Your task to perform on an android device: star an email in the gmail app Image 0: 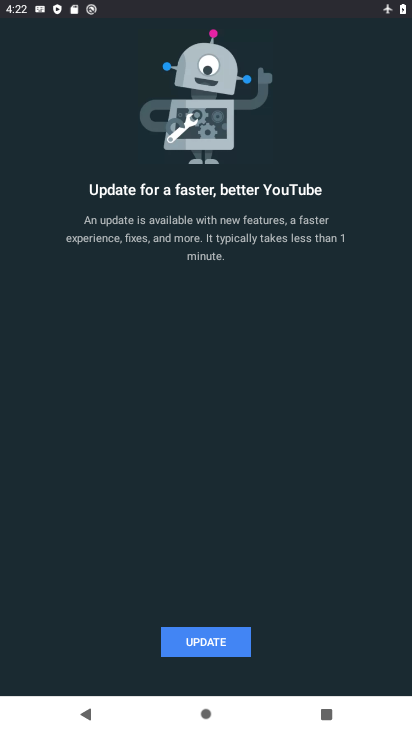
Step 0: press home button
Your task to perform on an android device: star an email in the gmail app Image 1: 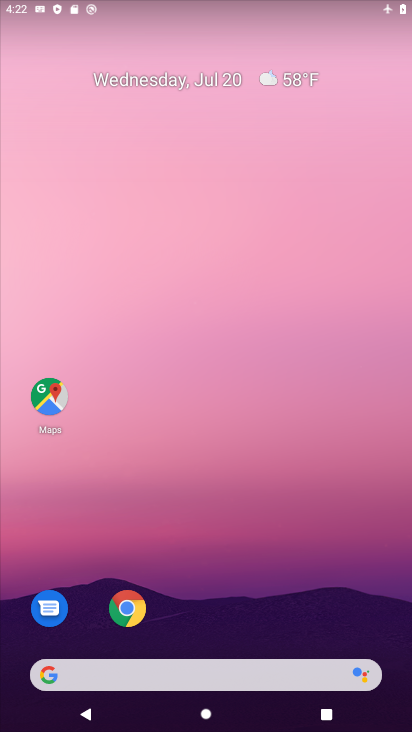
Step 1: drag from (282, 610) to (283, 329)
Your task to perform on an android device: star an email in the gmail app Image 2: 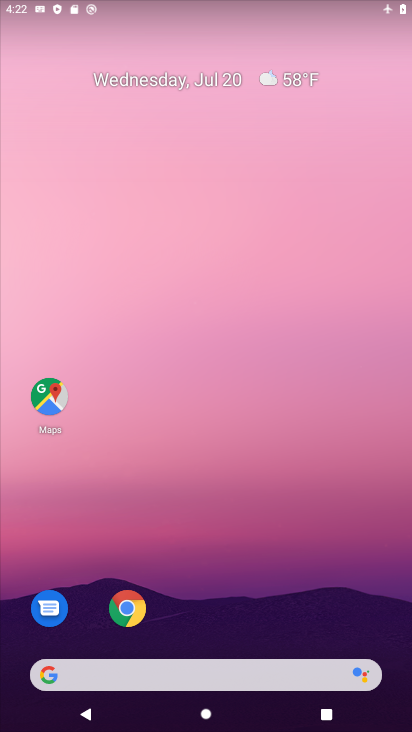
Step 2: drag from (221, 622) to (233, 225)
Your task to perform on an android device: star an email in the gmail app Image 3: 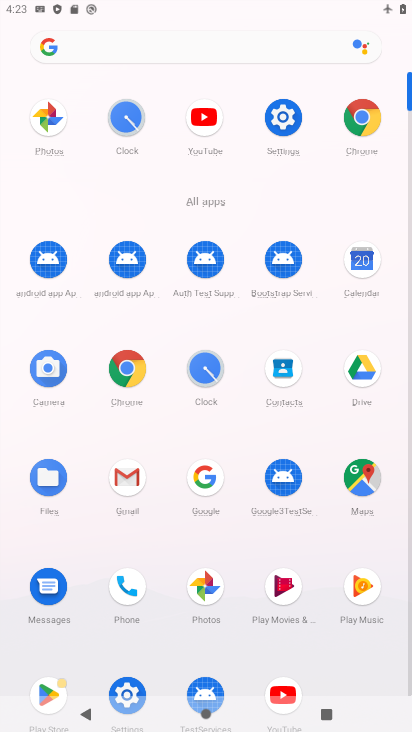
Step 3: click (133, 464)
Your task to perform on an android device: star an email in the gmail app Image 4: 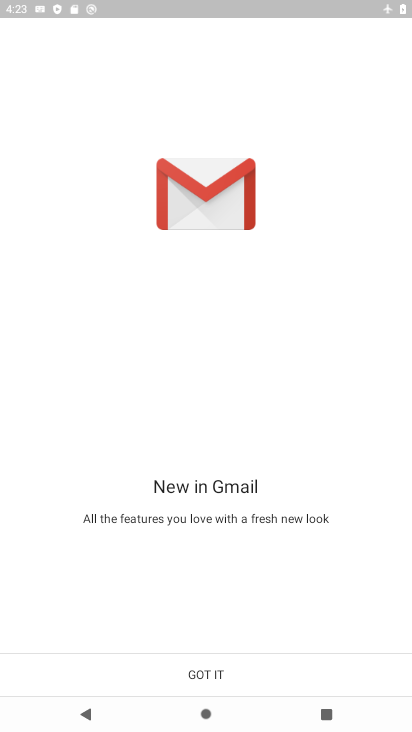
Step 4: click (204, 680)
Your task to perform on an android device: star an email in the gmail app Image 5: 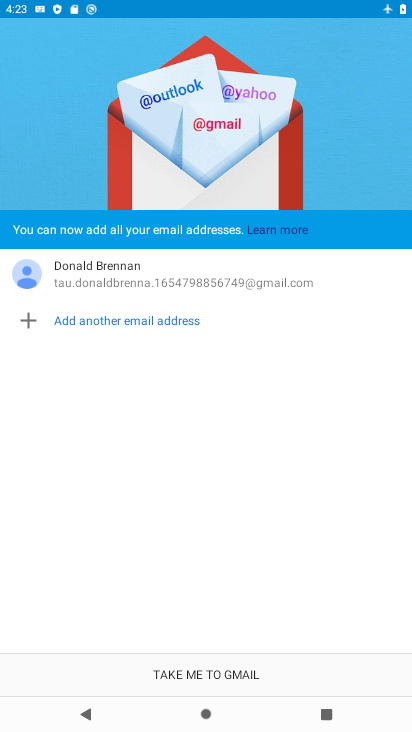
Step 5: click (226, 666)
Your task to perform on an android device: star an email in the gmail app Image 6: 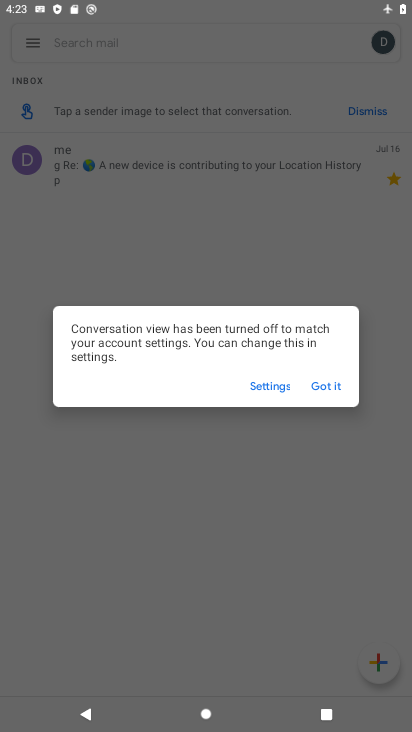
Step 6: click (332, 383)
Your task to perform on an android device: star an email in the gmail app Image 7: 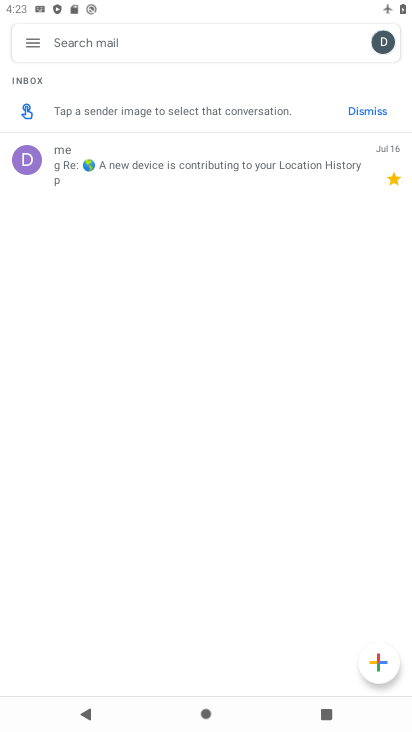
Step 7: task complete